Your task to perform on an android device: visit the assistant section in the google photos Image 0: 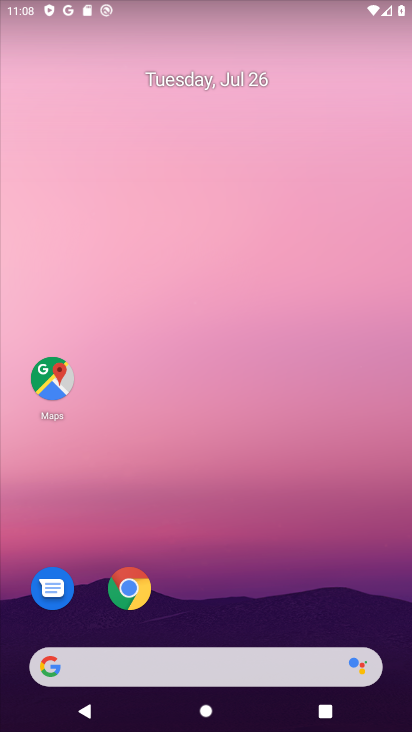
Step 0: drag from (291, 680) to (205, 109)
Your task to perform on an android device: visit the assistant section in the google photos Image 1: 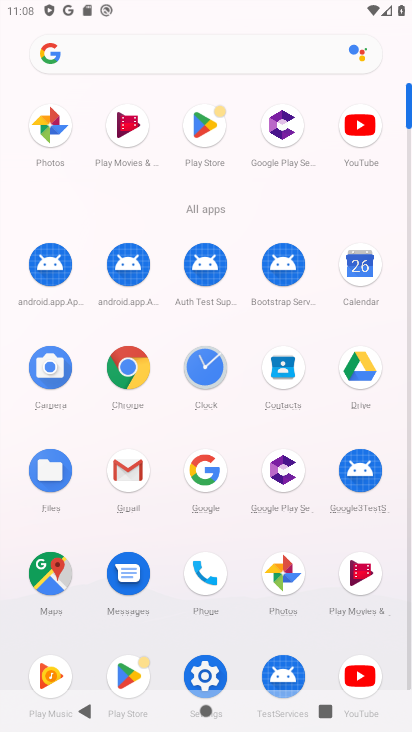
Step 1: click (270, 581)
Your task to perform on an android device: visit the assistant section in the google photos Image 2: 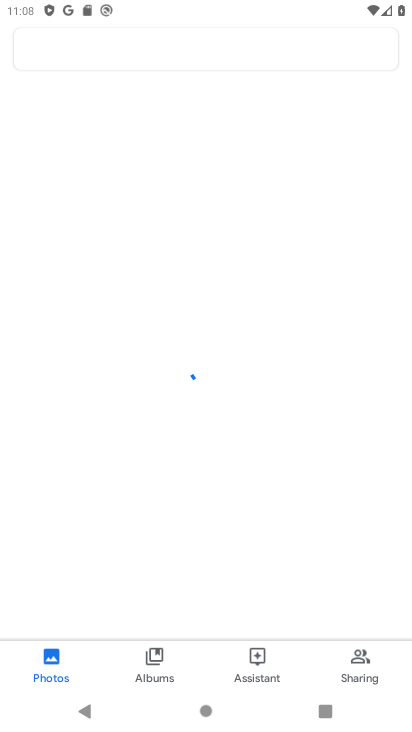
Step 2: click (244, 659)
Your task to perform on an android device: visit the assistant section in the google photos Image 3: 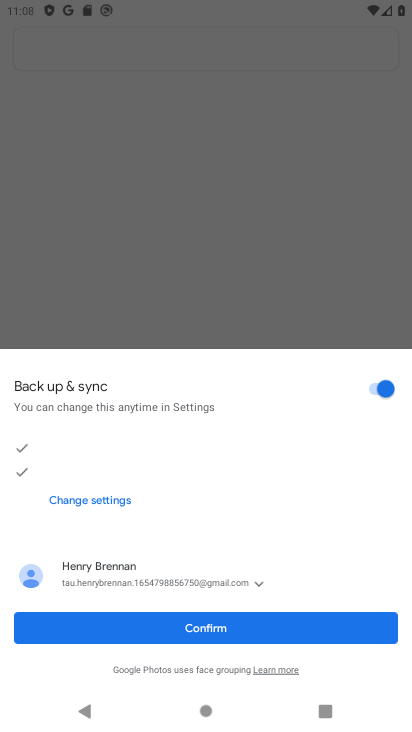
Step 3: click (237, 616)
Your task to perform on an android device: visit the assistant section in the google photos Image 4: 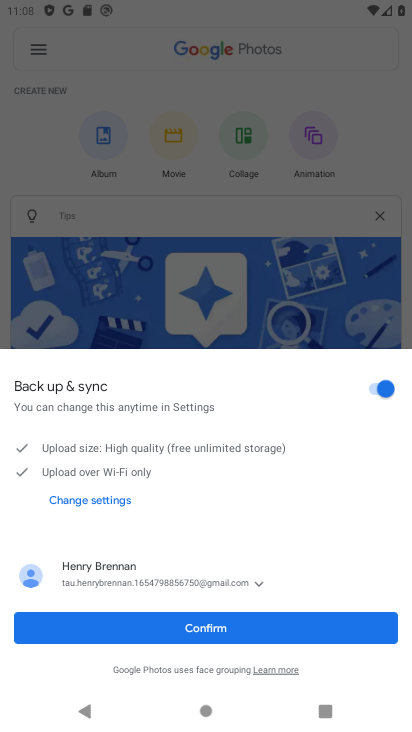
Step 4: click (257, 626)
Your task to perform on an android device: visit the assistant section in the google photos Image 5: 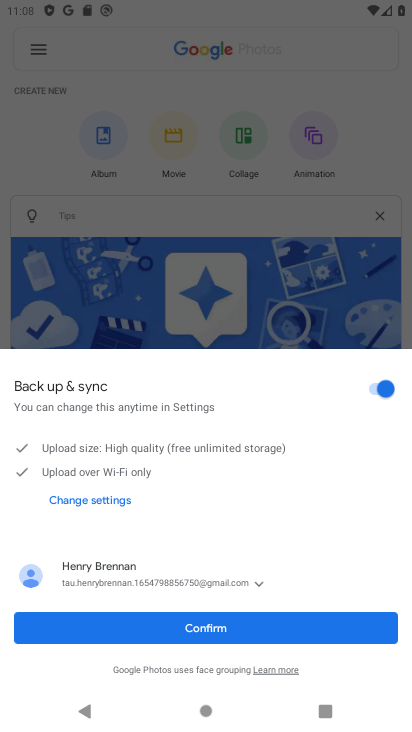
Step 5: click (203, 624)
Your task to perform on an android device: visit the assistant section in the google photos Image 6: 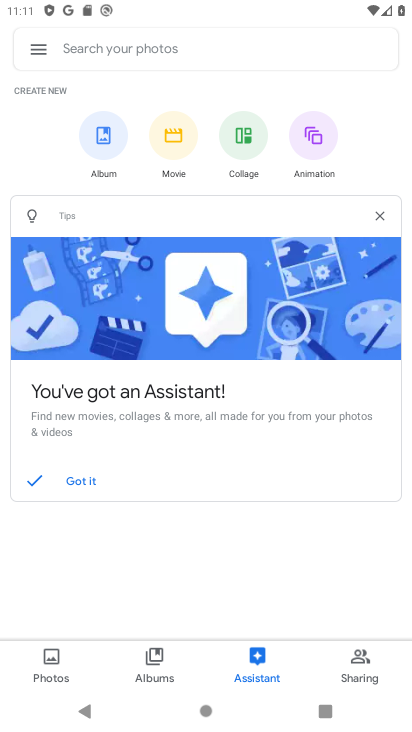
Step 6: task complete